Your task to perform on an android device: toggle notifications settings in the gmail app Image 0: 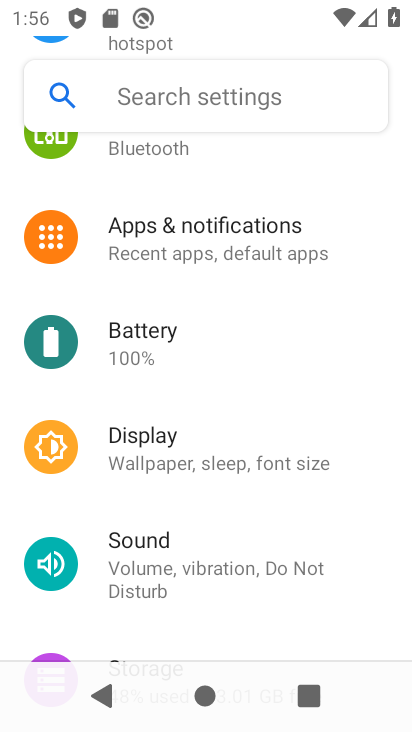
Step 0: press home button
Your task to perform on an android device: toggle notifications settings in the gmail app Image 1: 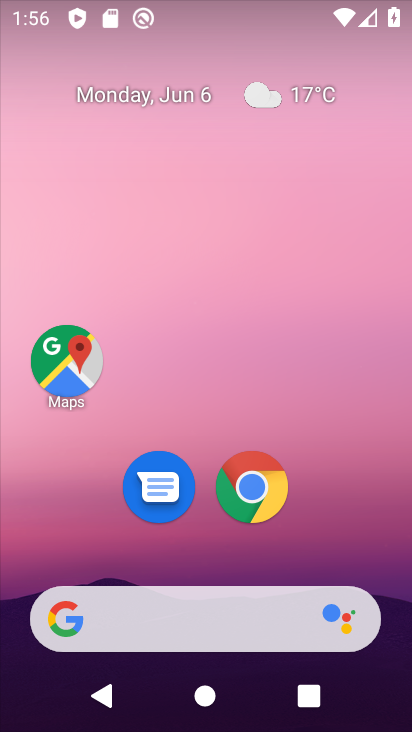
Step 1: drag from (320, 552) to (396, 77)
Your task to perform on an android device: toggle notifications settings in the gmail app Image 2: 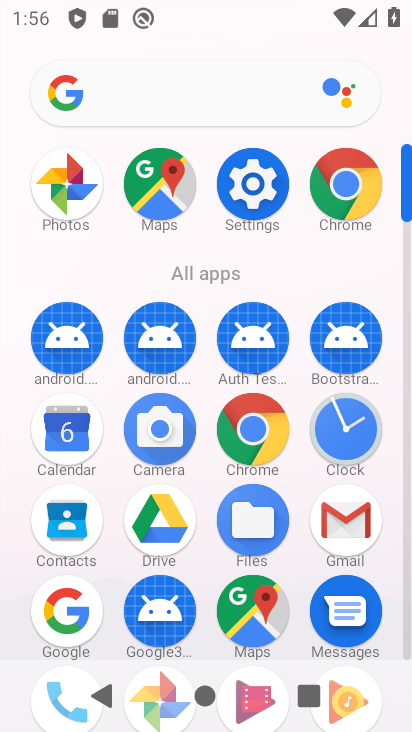
Step 2: click (332, 519)
Your task to perform on an android device: toggle notifications settings in the gmail app Image 3: 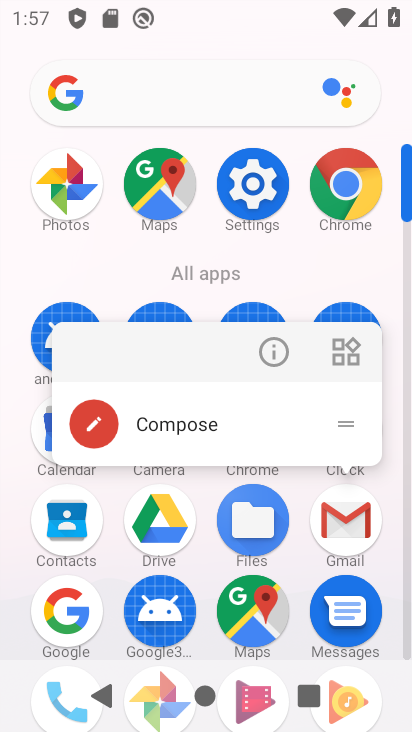
Step 3: click (278, 348)
Your task to perform on an android device: toggle notifications settings in the gmail app Image 4: 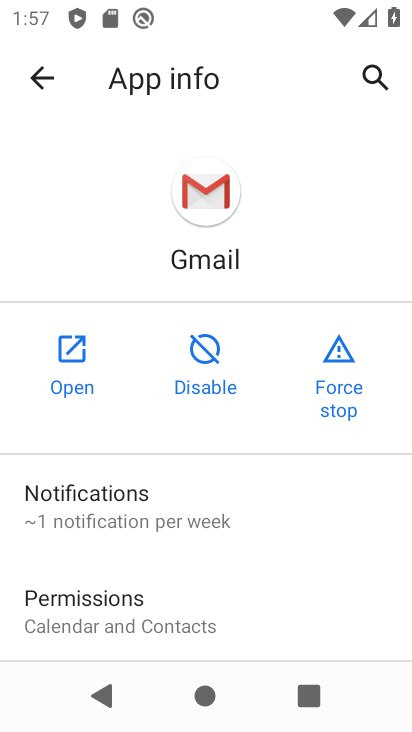
Step 4: drag from (234, 580) to (292, 365)
Your task to perform on an android device: toggle notifications settings in the gmail app Image 5: 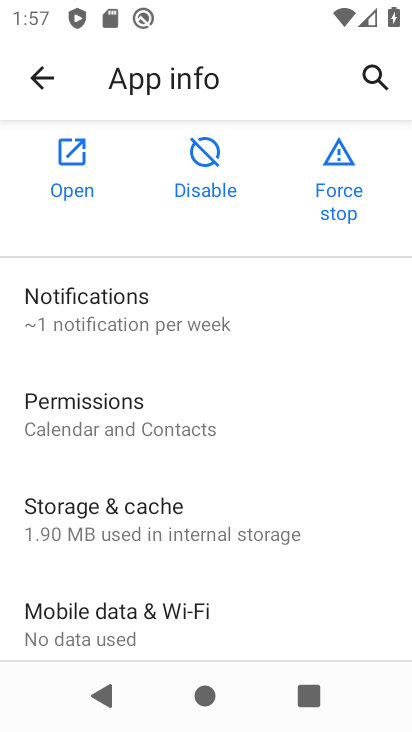
Step 5: click (92, 295)
Your task to perform on an android device: toggle notifications settings in the gmail app Image 6: 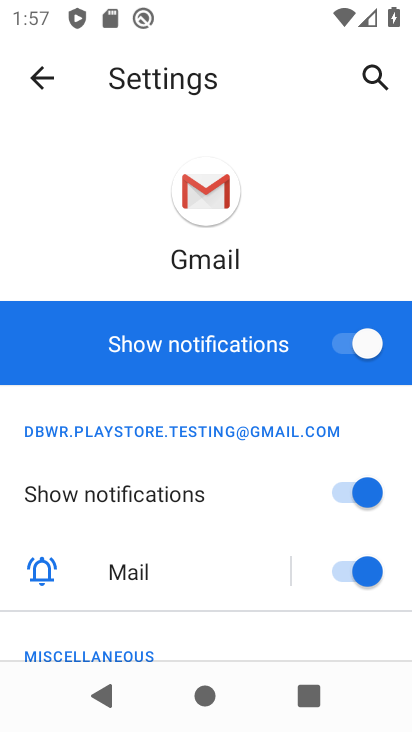
Step 6: click (344, 337)
Your task to perform on an android device: toggle notifications settings in the gmail app Image 7: 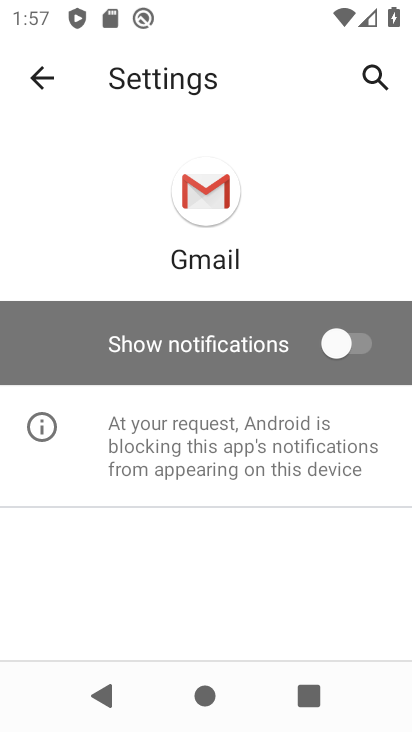
Step 7: task complete